Your task to perform on an android device: turn off notifications settings in the gmail app Image 0: 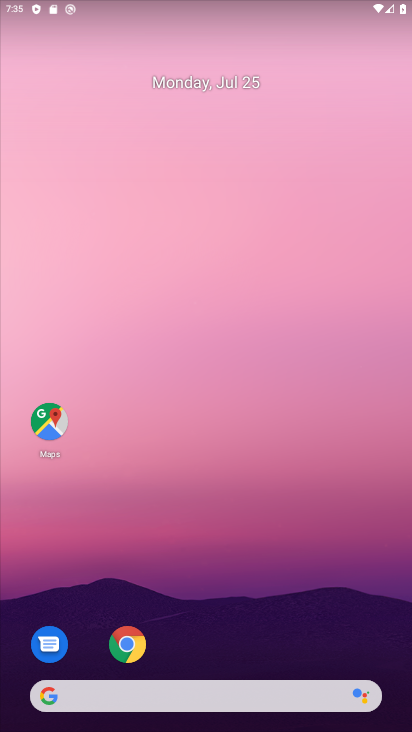
Step 0: drag from (206, 462) to (232, 18)
Your task to perform on an android device: turn off notifications settings in the gmail app Image 1: 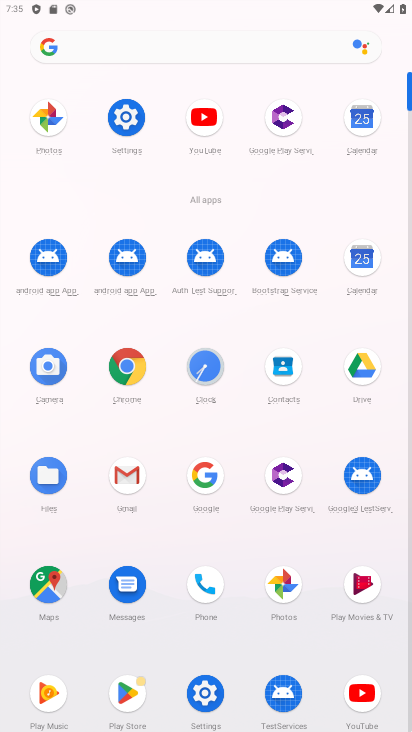
Step 1: click (121, 130)
Your task to perform on an android device: turn off notifications settings in the gmail app Image 2: 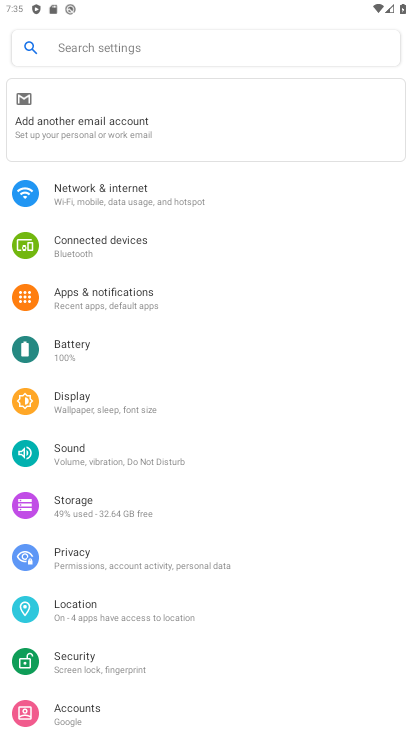
Step 2: click (53, 307)
Your task to perform on an android device: turn off notifications settings in the gmail app Image 3: 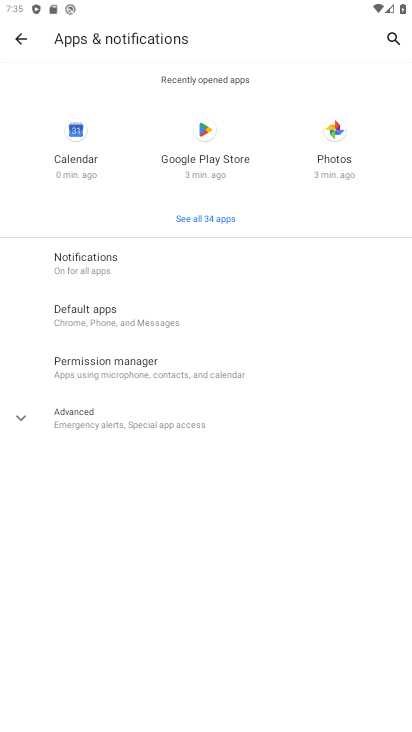
Step 3: click (97, 268)
Your task to perform on an android device: turn off notifications settings in the gmail app Image 4: 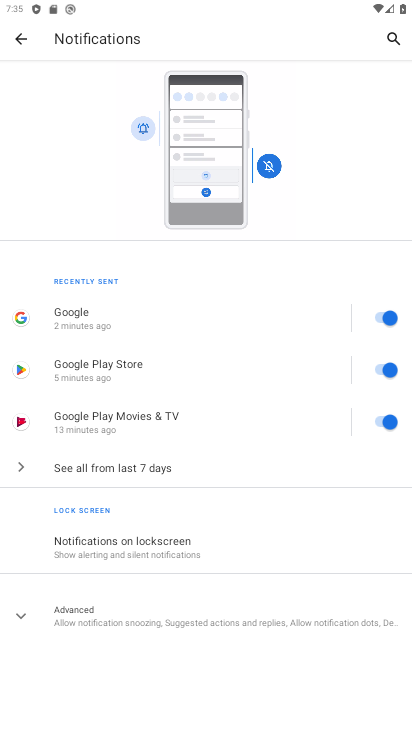
Step 4: task complete